Your task to perform on an android device: set the timer Image 0: 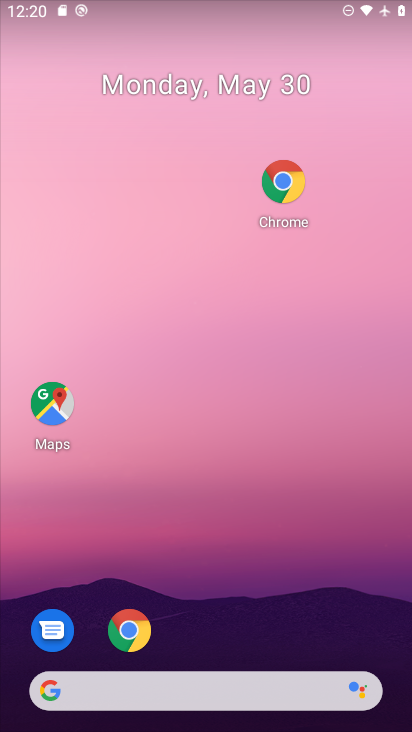
Step 0: drag from (324, 658) to (83, 55)
Your task to perform on an android device: set the timer Image 1: 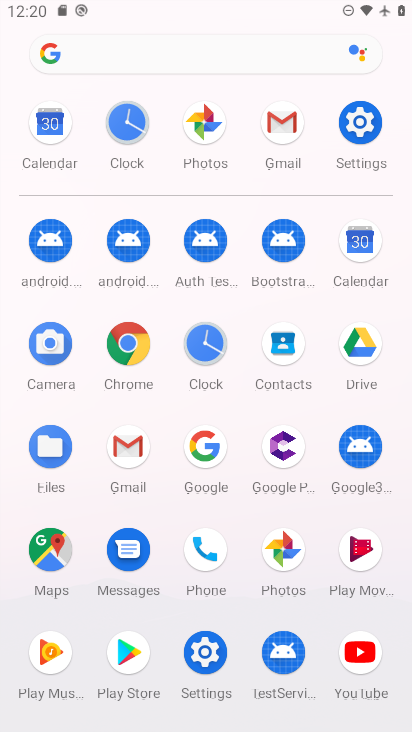
Step 1: click (119, 116)
Your task to perform on an android device: set the timer Image 2: 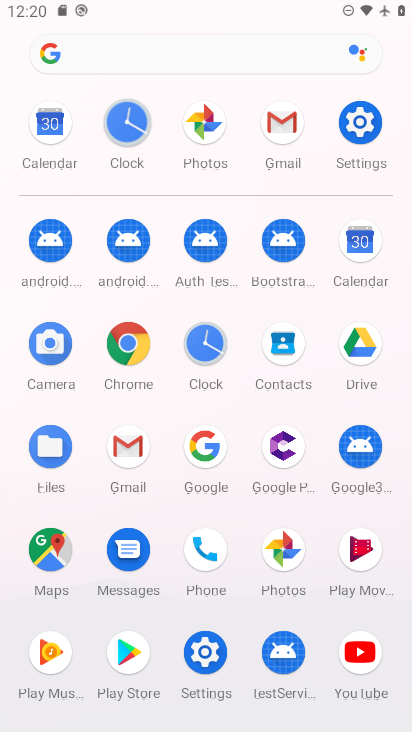
Step 2: click (119, 116)
Your task to perform on an android device: set the timer Image 3: 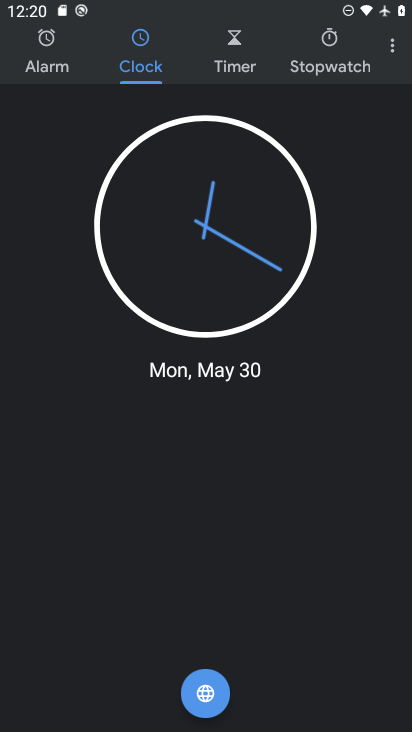
Step 3: click (227, 64)
Your task to perform on an android device: set the timer Image 4: 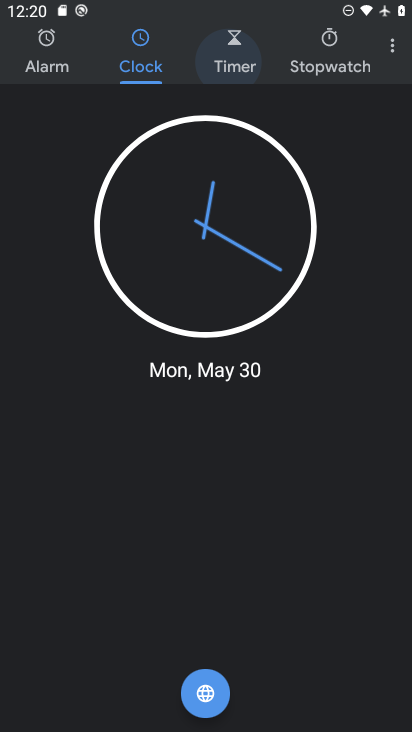
Step 4: click (227, 64)
Your task to perform on an android device: set the timer Image 5: 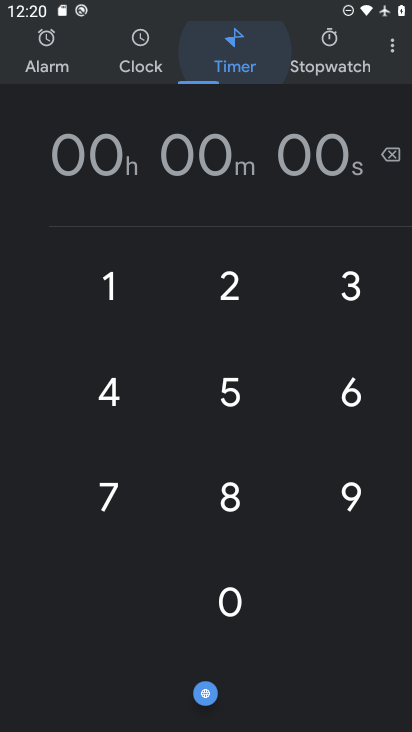
Step 5: click (227, 64)
Your task to perform on an android device: set the timer Image 6: 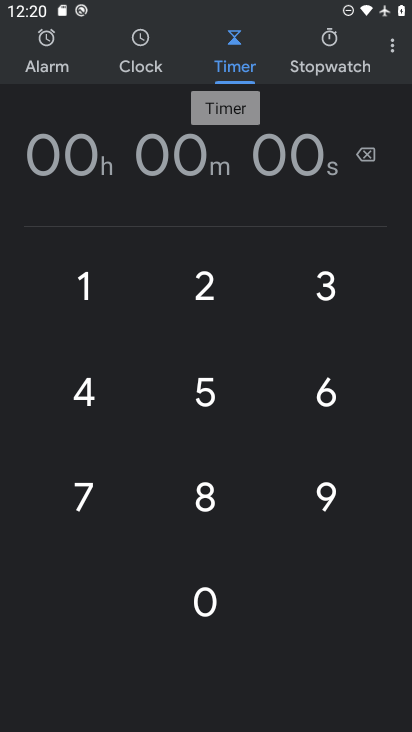
Step 6: click (222, 494)
Your task to perform on an android device: set the timer Image 7: 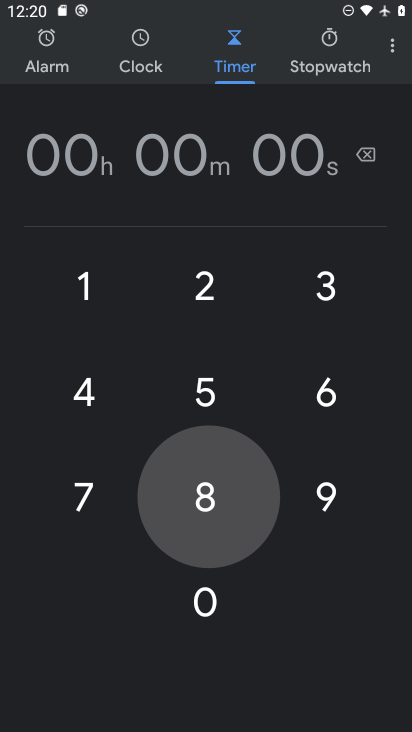
Step 7: click (216, 496)
Your task to perform on an android device: set the timer Image 8: 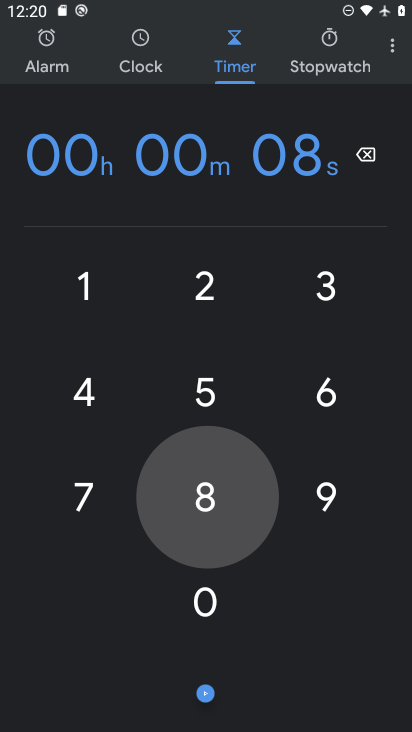
Step 8: click (216, 496)
Your task to perform on an android device: set the timer Image 9: 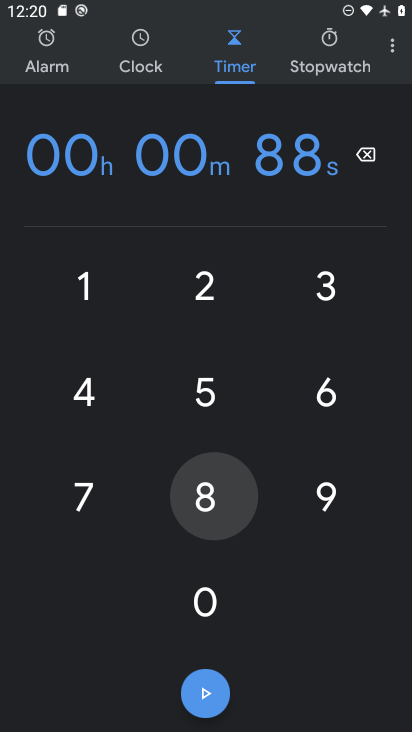
Step 9: click (216, 496)
Your task to perform on an android device: set the timer Image 10: 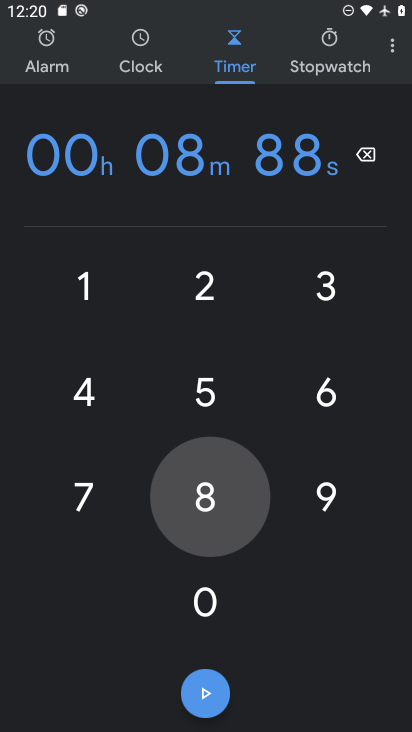
Step 10: click (214, 498)
Your task to perform on an android device: set the timer Image 11: 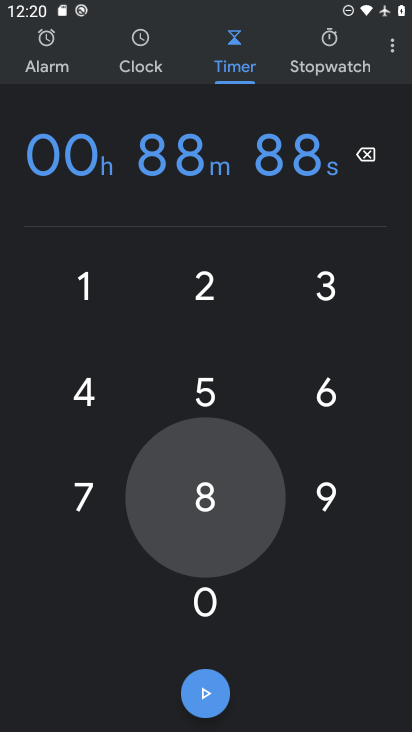
Step 11: click (214, 498)
Your task to perform on an android device: set the timer Image 12: 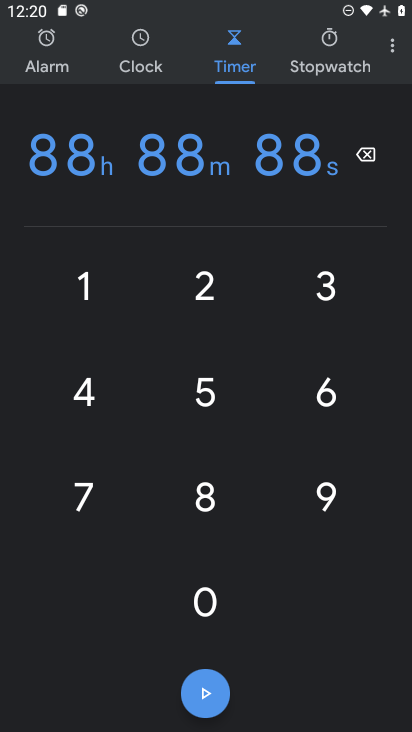
Step 12: click (207, 704)
Your task to perform on an android device: set the timer Image 13: 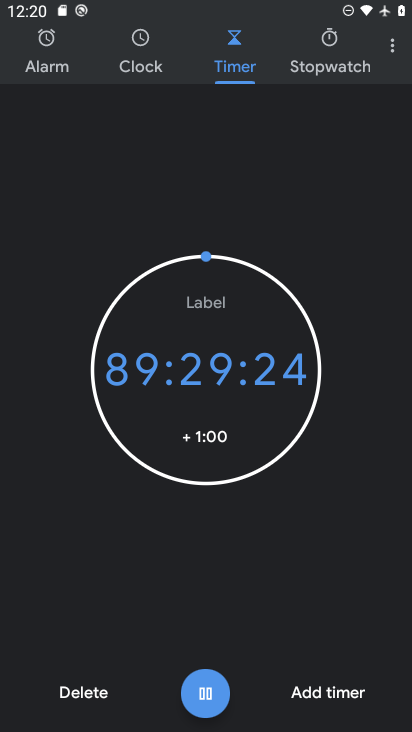
Step 13: click (202, 685)
Your task to perform on an android device: set the timer Image 14: 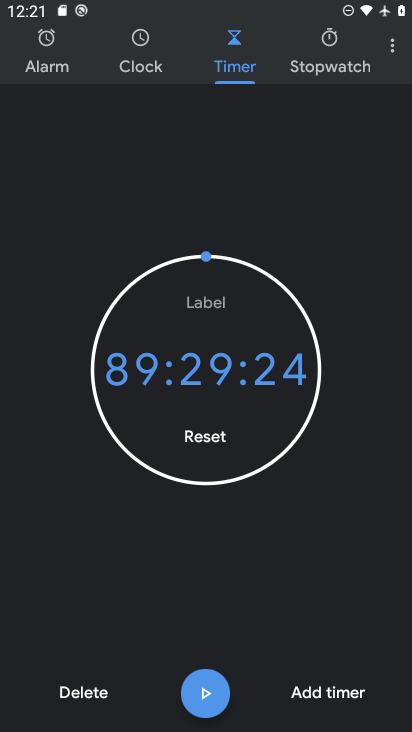
Step 14: task complete